Your task to perform on an android device: open app "ColorNote Notepad Notes" Image 0: 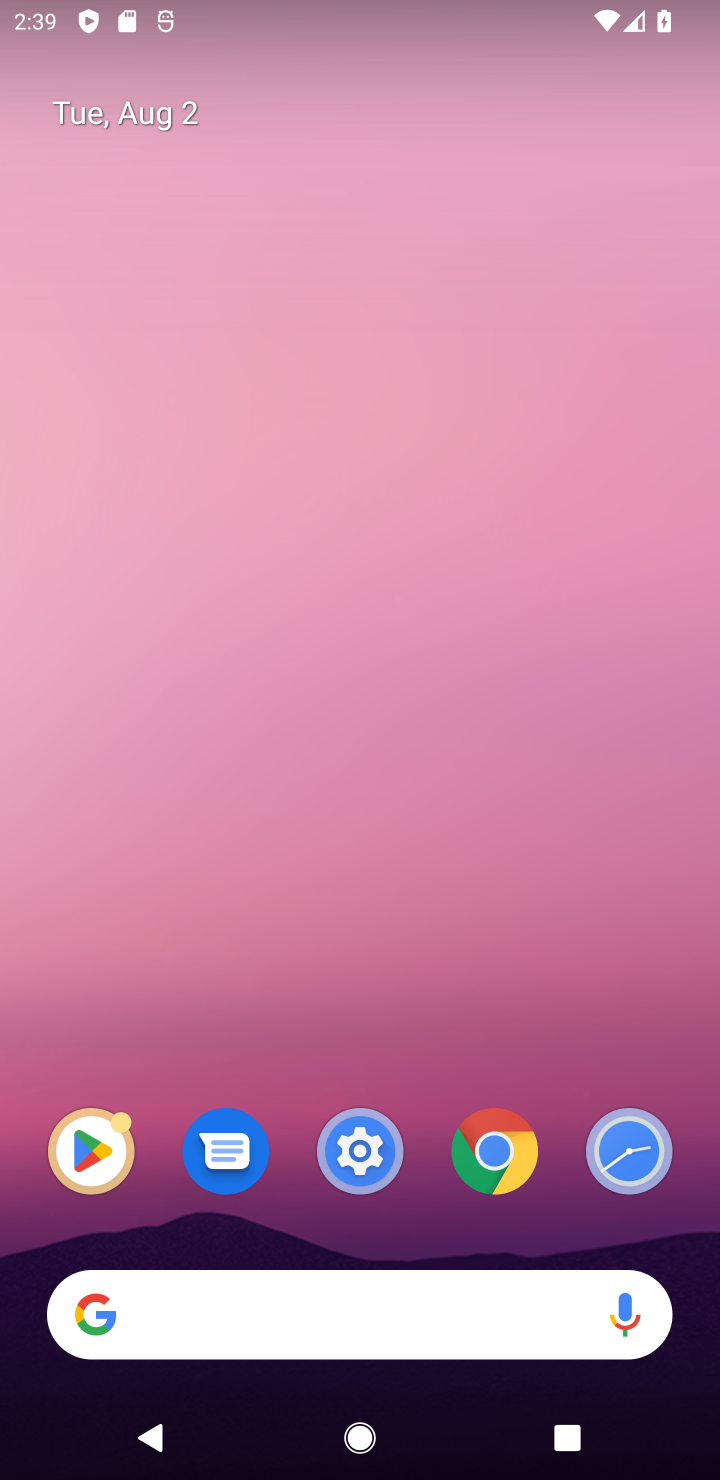
Step 0: drag from (345, 1238) to (442, 176)
Your task to perform on an android device: open app "ColorNote Notepad Notes" Image 1: 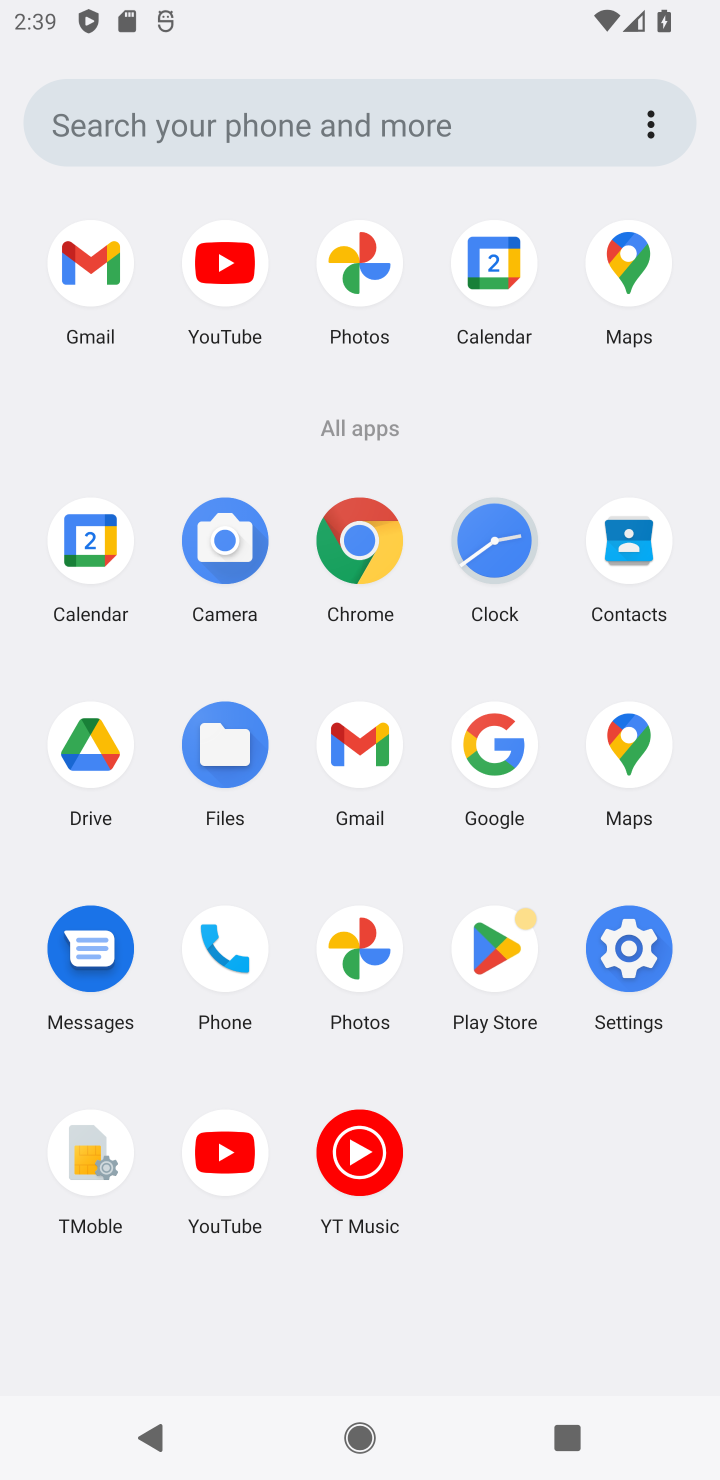
Step 1: task complete